Your task to perform on an android device: Search for the best rated headphones on Amazon. Image 0: 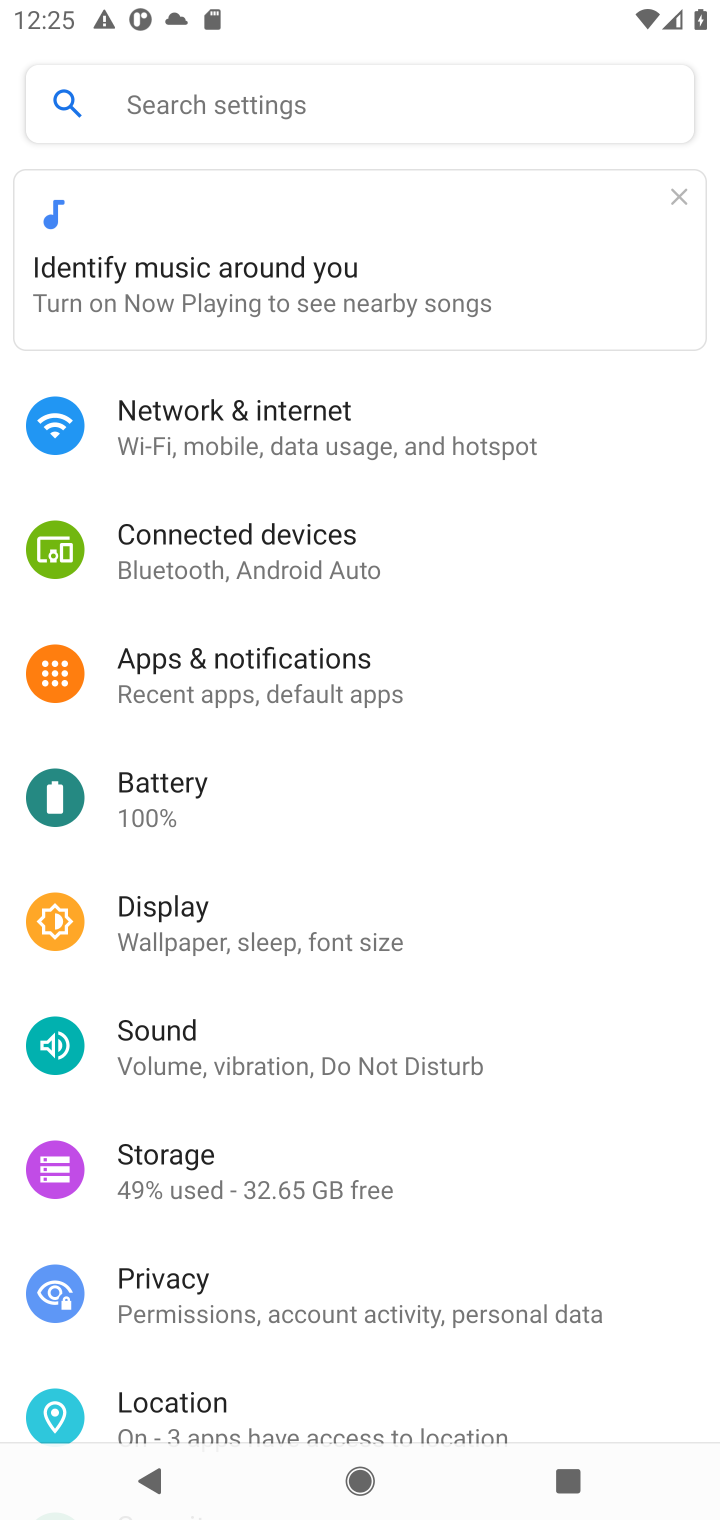
Step 0: press home button
Your task to perform on an android device: Search for the best rated headphones on Amazon. Image 1: 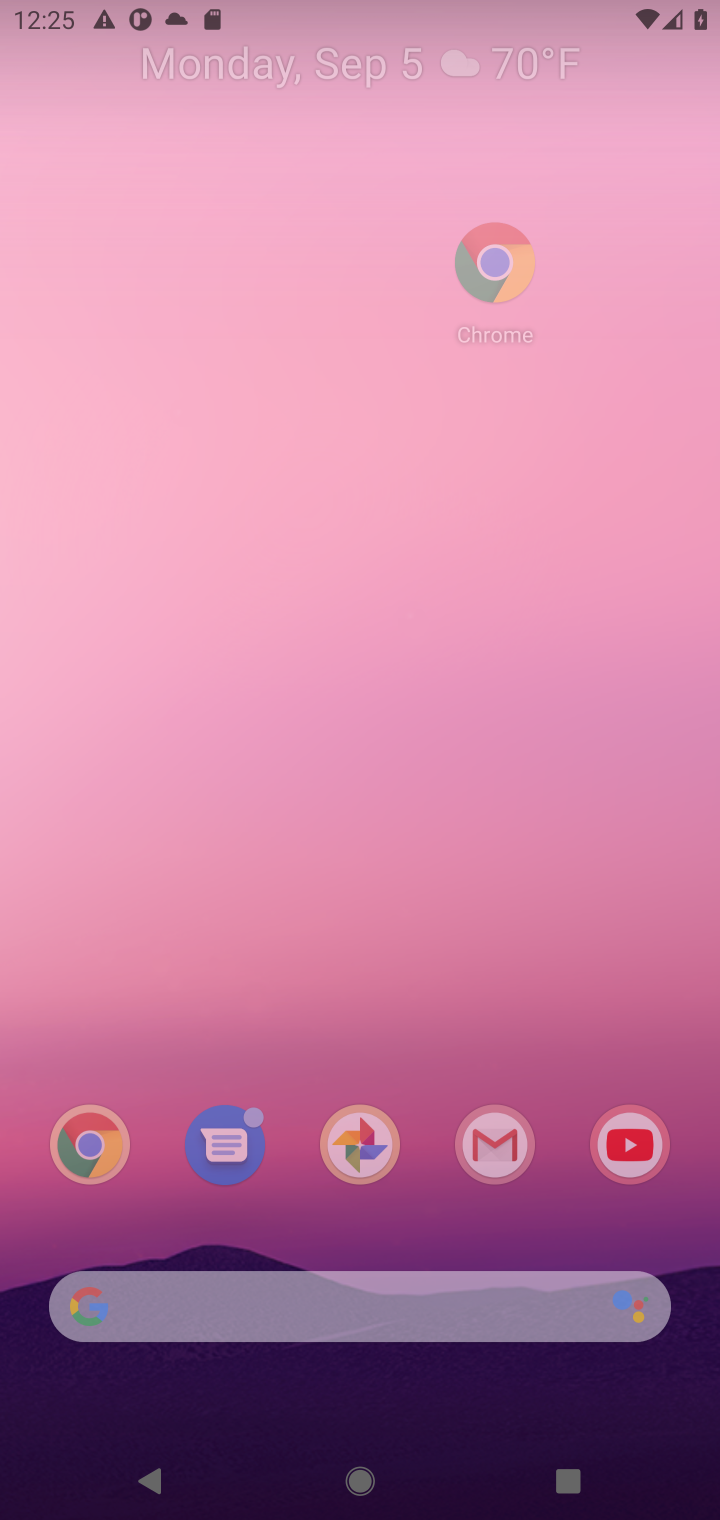
Step 1: press home button
Your task to perform on an android device: Search for the best rated headphones on Amazon. Image 2: 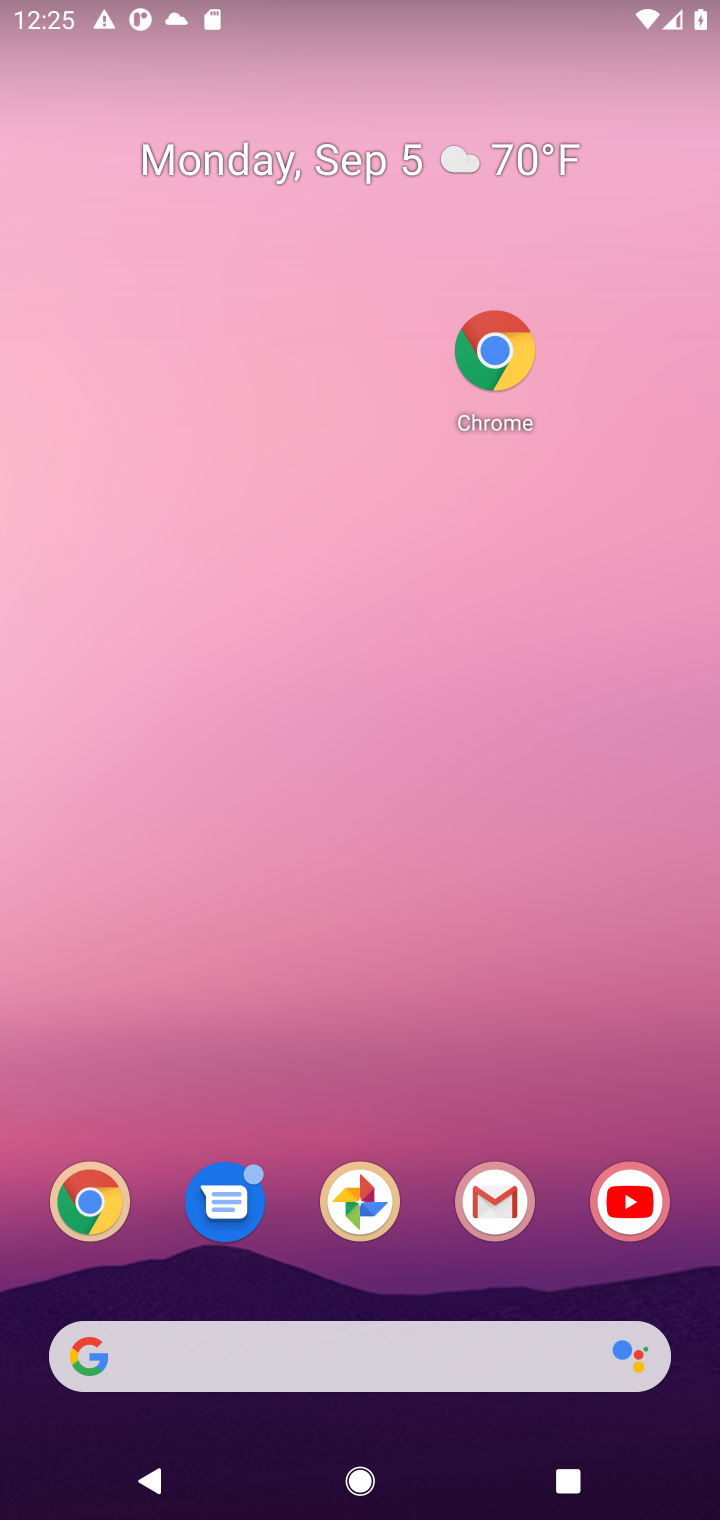
Step 2: drag from (563, 1273) to (667, 19)
Your task to perform on an android device: Search for the best rated headphones on Amazon. Image 3: 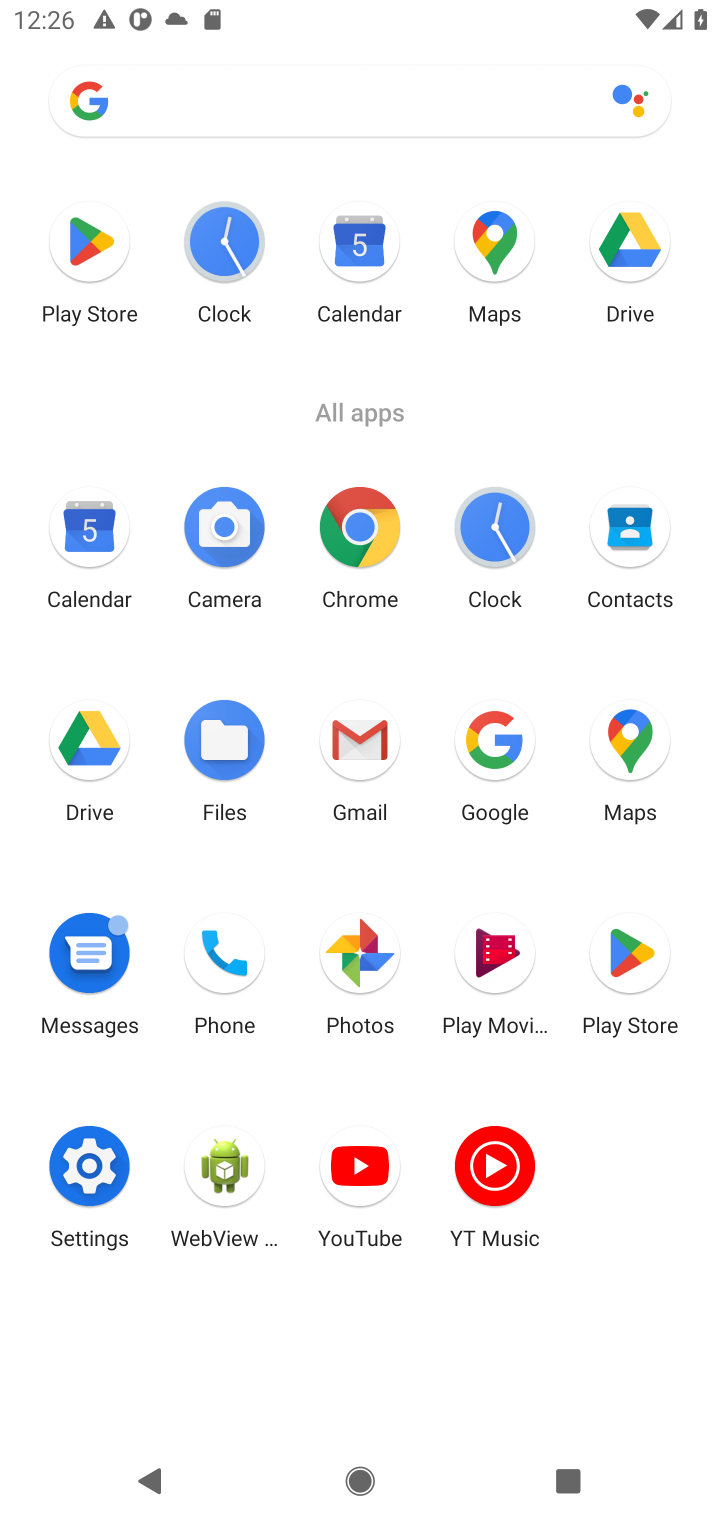
Step 3: click (366, 526)
Your task to perform on an android device: Search for the best rated headphones on Amazon. Image 4: 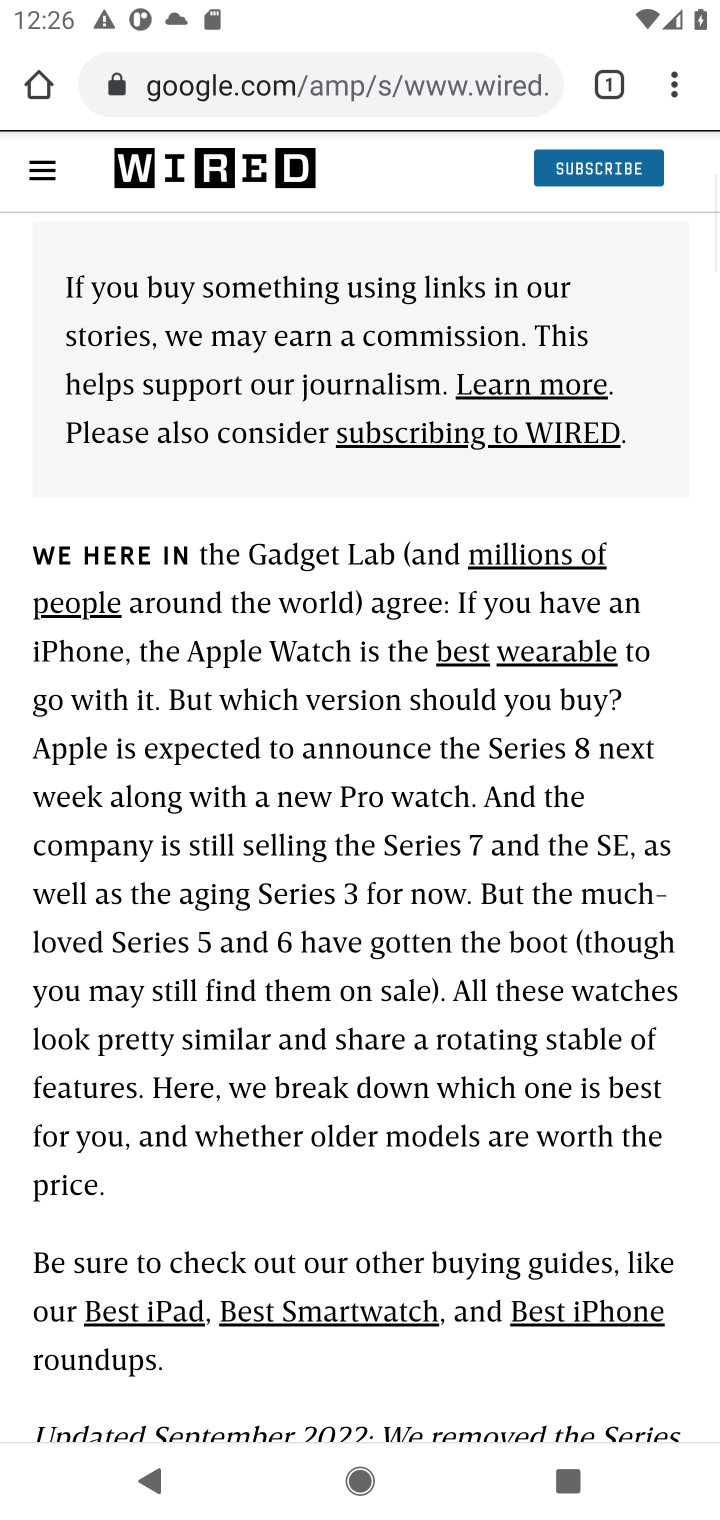
Step 4: click (393, 85)
Your task to perform on an android device: Search for the best rated headphones on Amazon. Image 5: 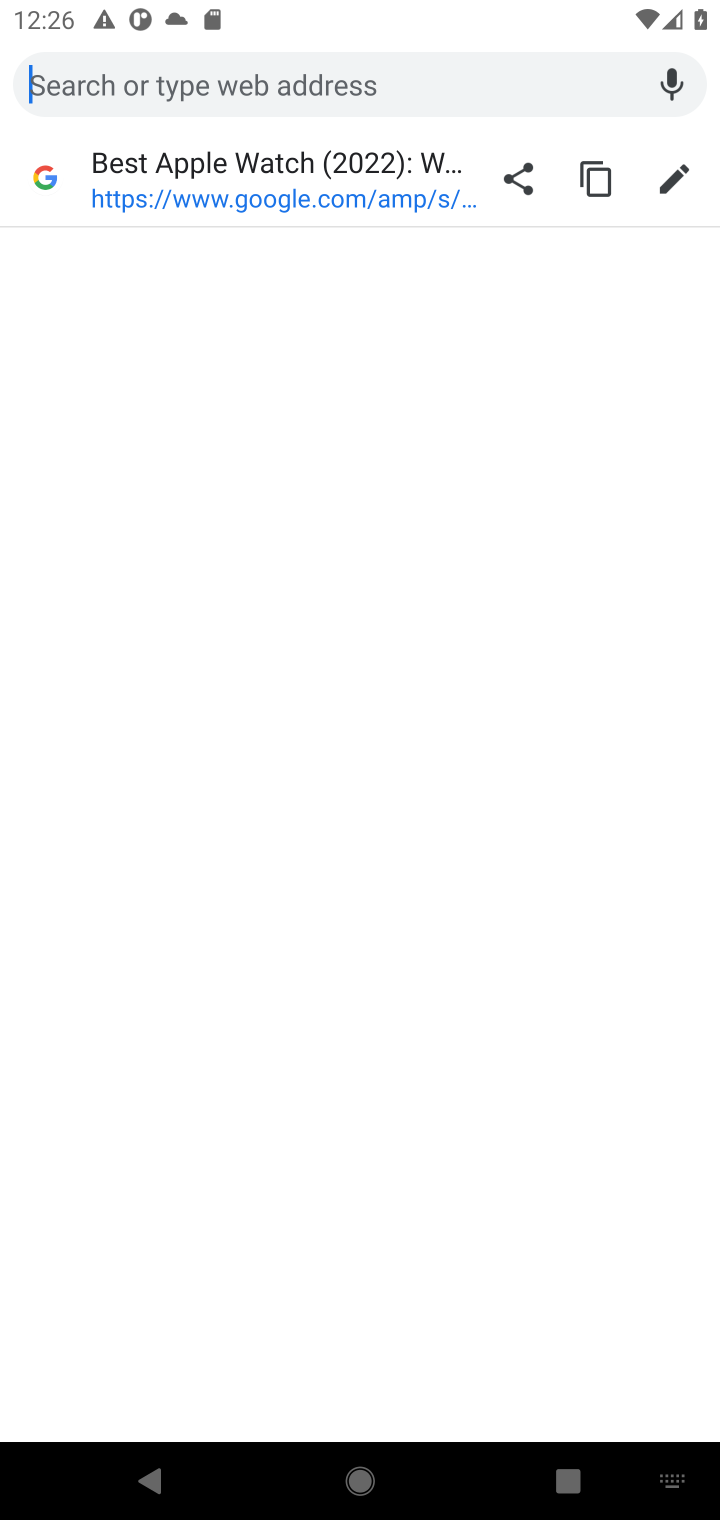
Step 5: type "best rated headphones on Amazon"
Your task to perform on an android device: Search for the best rated headphones on Amazon. Image 6: 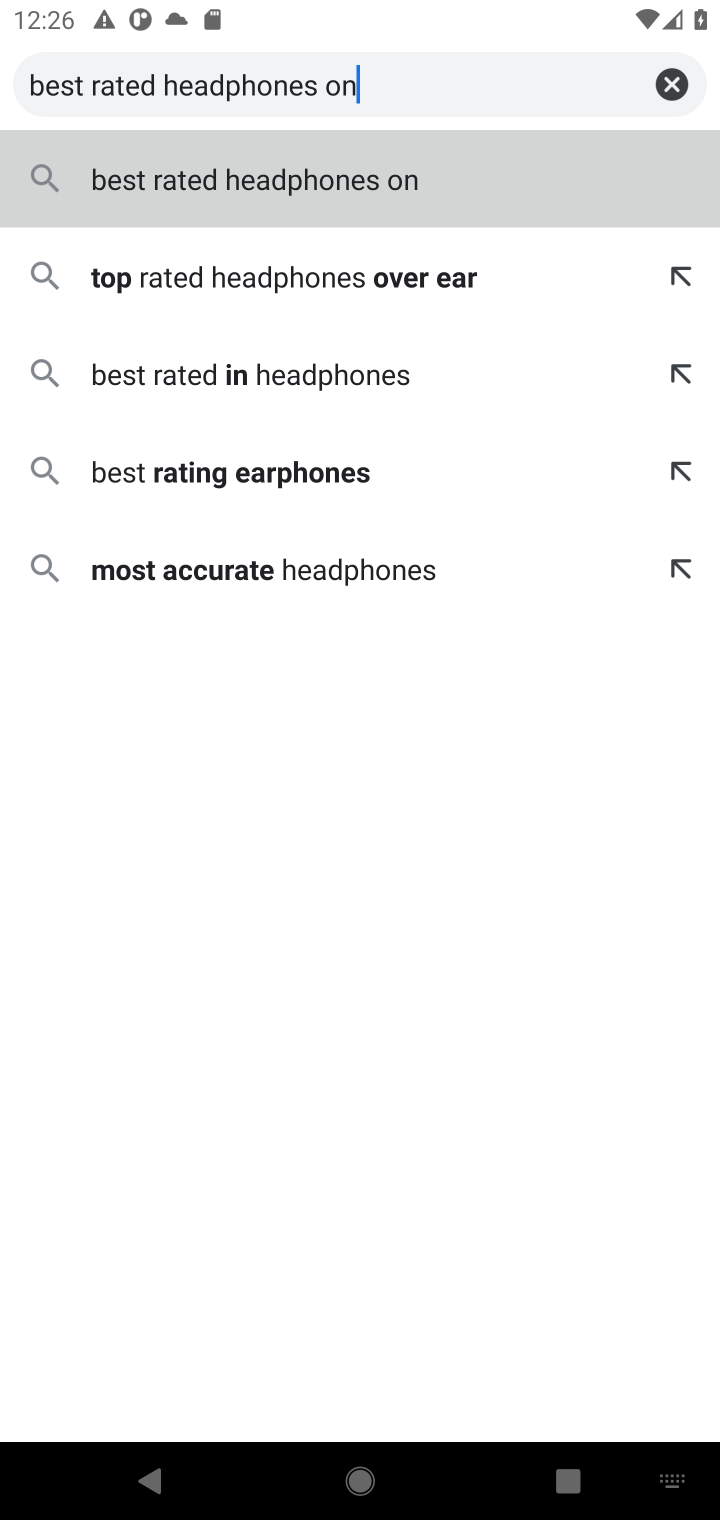
Step 6: type " Amazon"
Your task to perform on an android device: Search for the best rated headphones on Amazon. Image 7: 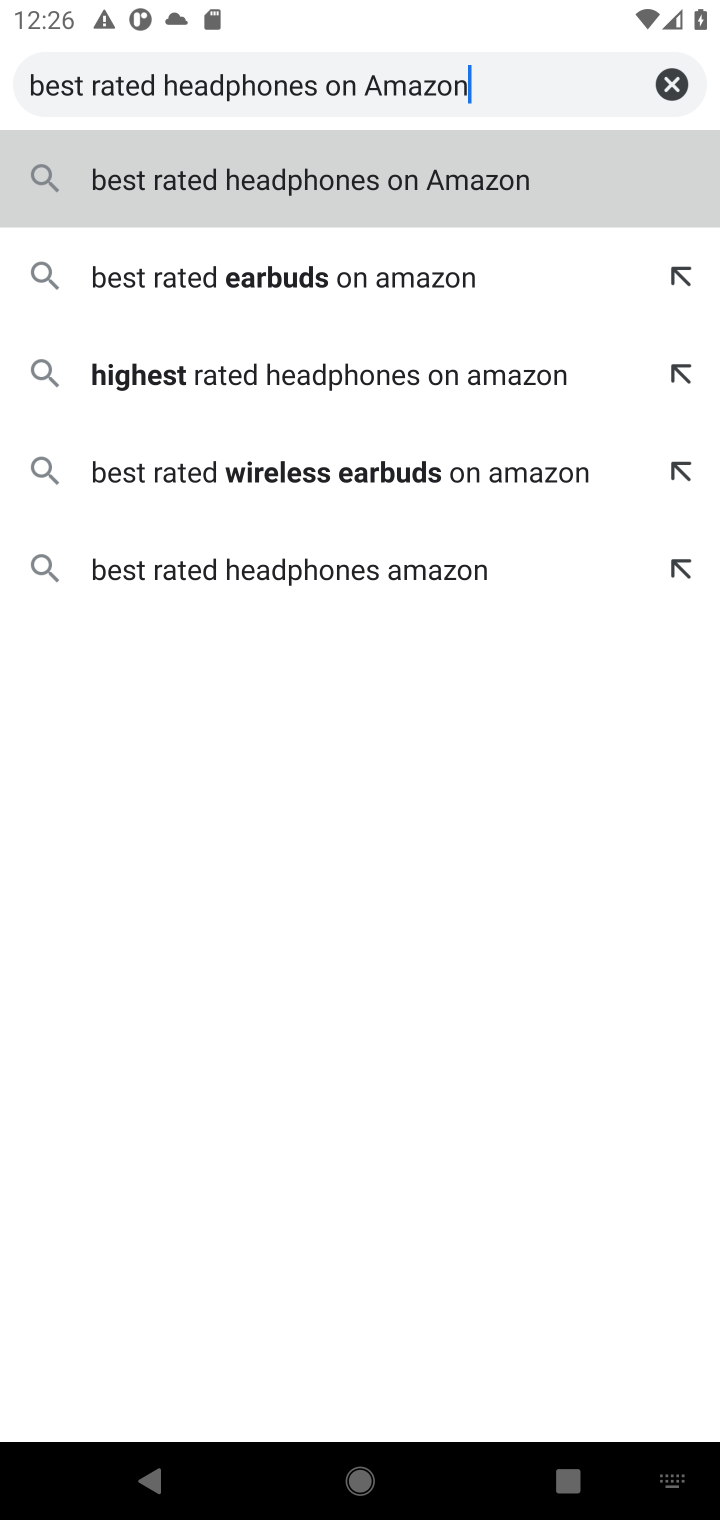
Step 7: press enter
Your task to perform on an android device: Search for the best rated headphones on Amazon. Image 8: 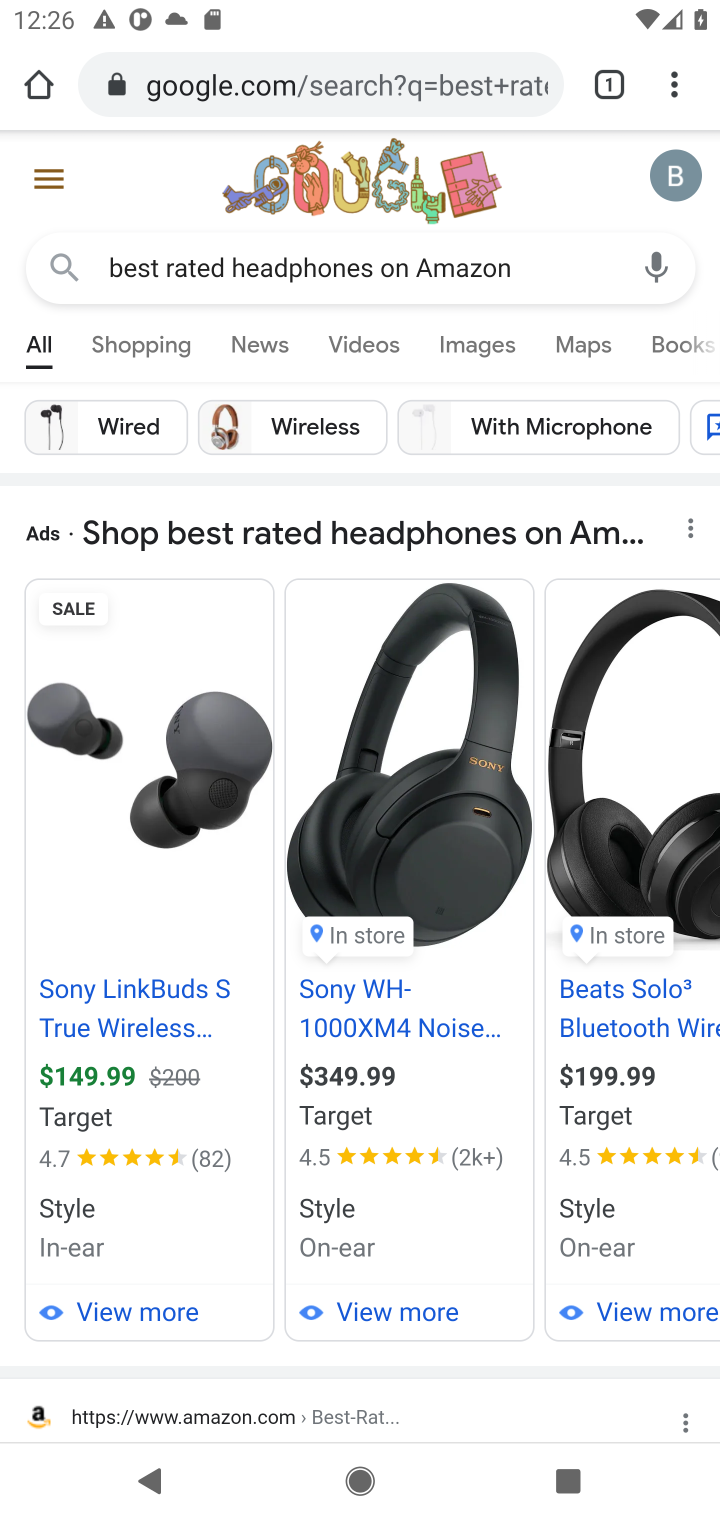
Step 8: drag from (355, 890) to (557, 155)
Your task to perform on an android device: Search for the best rated headphones on Amazon. Image 9: 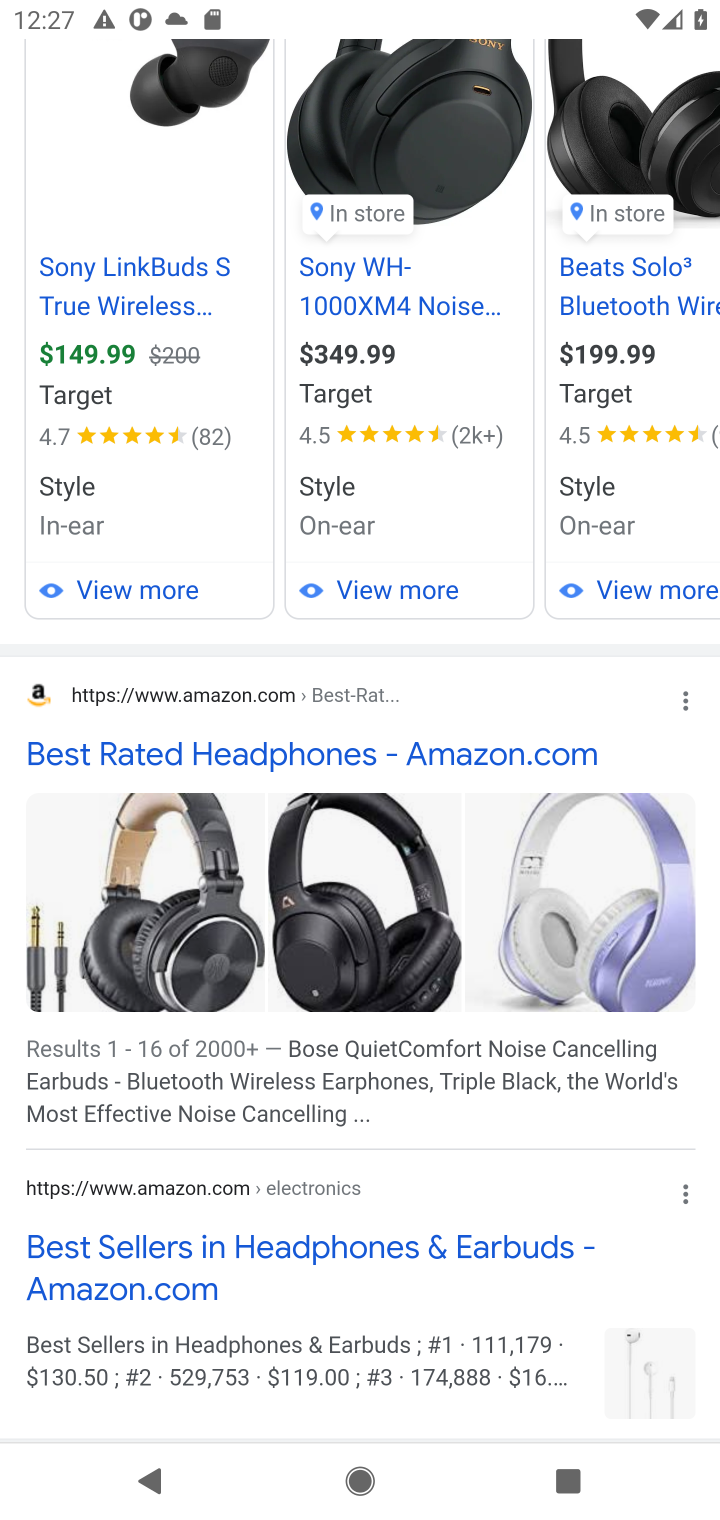
Step 9: click (275, 743)
Your task to perform on an android device: Search for the best rated headphones on Amazon. Image 10: 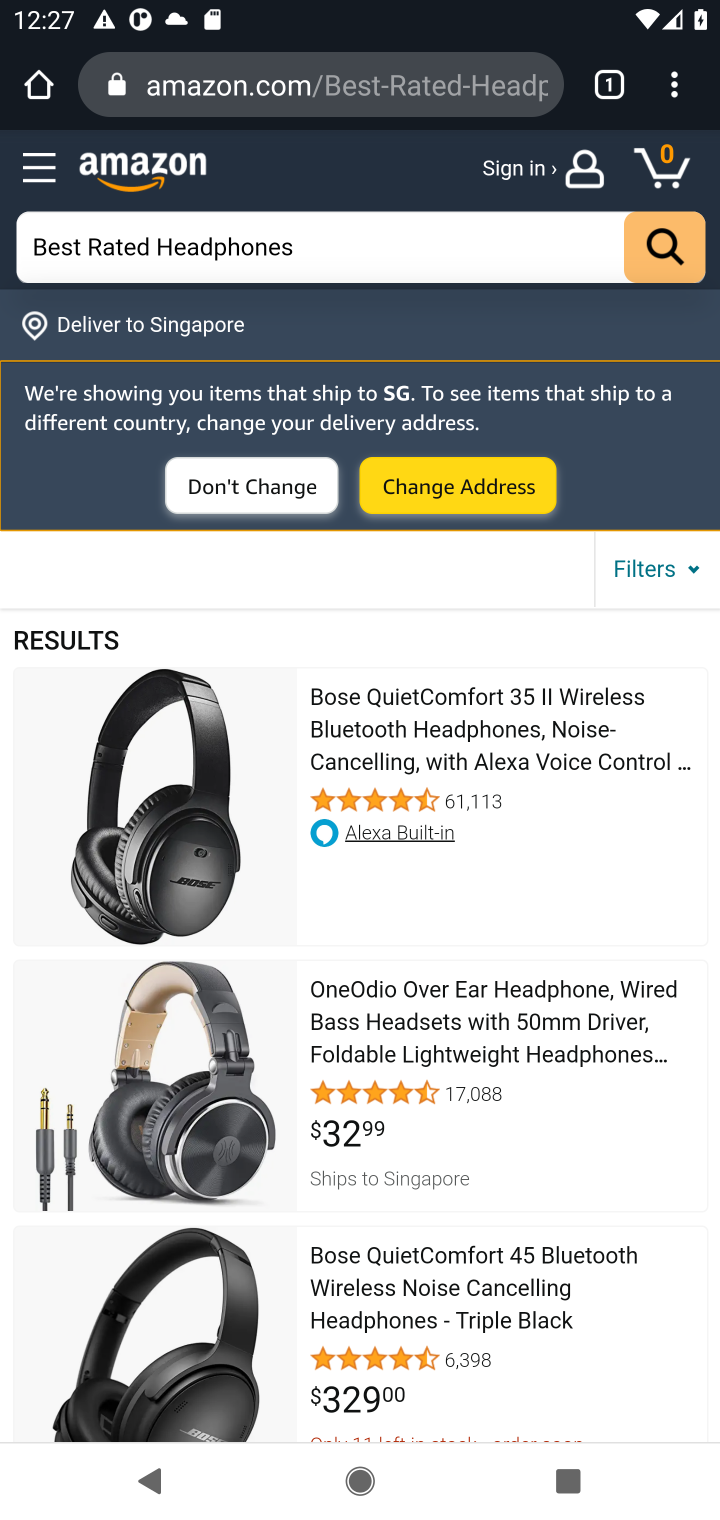
Step 10: task complete